Your task to perform on an android device: Go to calendar. Show me events next week Image 0: 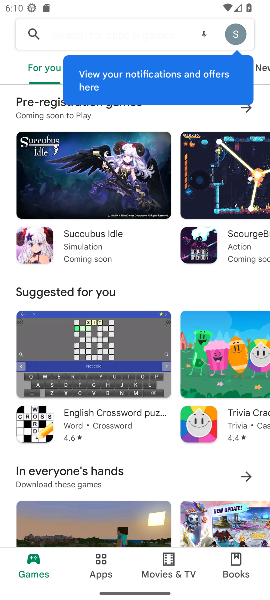
Step 0: press home button
Your task to perform on an android device: Go to calendar. Show me events next week Image 1: 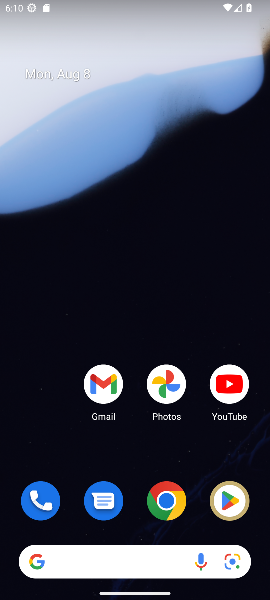
Step 1: drag from (150, 445) to (129, 28)
Your task to perform on an android device: Go to calendar. Show me events next week Image 2: 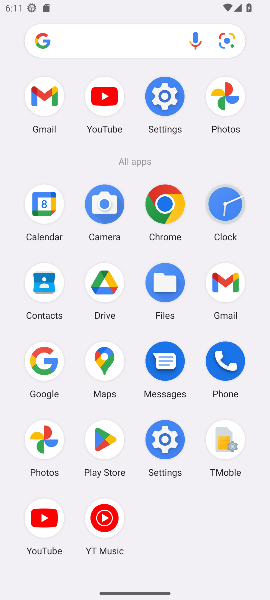
Step 2: click (45, 204)
Your task to perform on an android device: Go to calendar. Show me events next week Image 3: 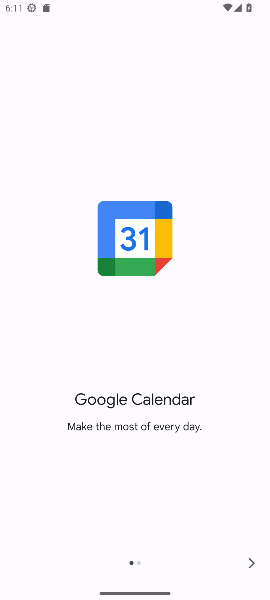
Step 3: click (248, 565)
Your task to perform on an android device: Go to calendar. Show me events next week Image 4: 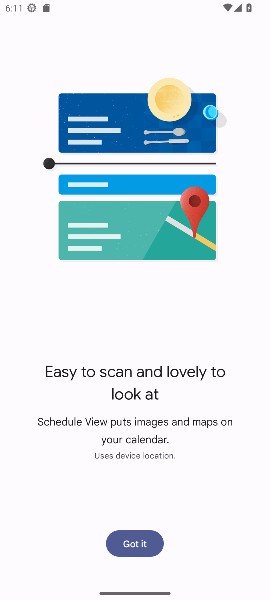
Step 4: click (133, 537)
Your task to perform on an android device: Go to calendar. Show me events next week Image 5: 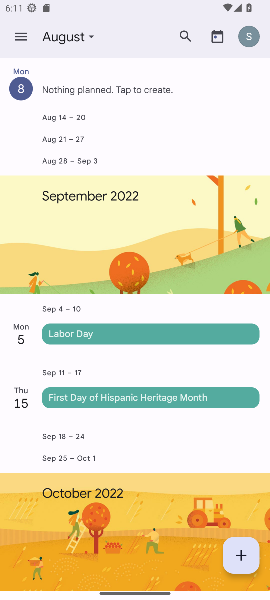
Step 5: click (75, 34)
Your task to perform on an android device: Go to calendar. Show me events next week Image 6: 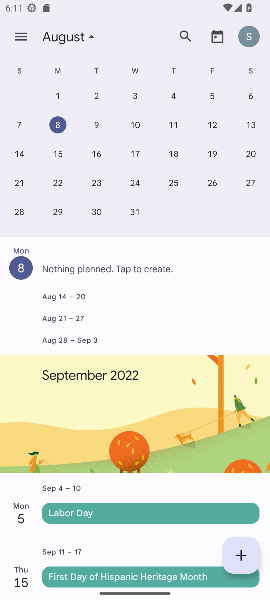
Step 6: click (26, 157)
Your task to perform on an android device: Go to calendar. Show me events next week Image 7: 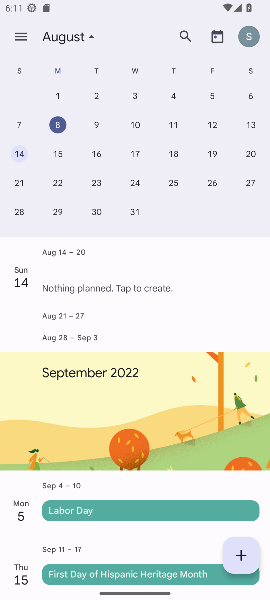
Step 7: click (52, 151)
Your task to perform on an android device: Go to calendar. Show me events next week Image 8: 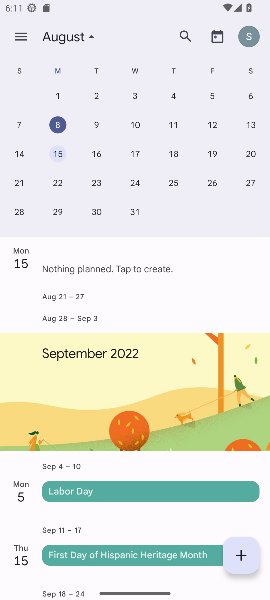
Step 8: click (95, 159)
Your task to perform on an android device: Go to calendar. Show me events next week Image 9: 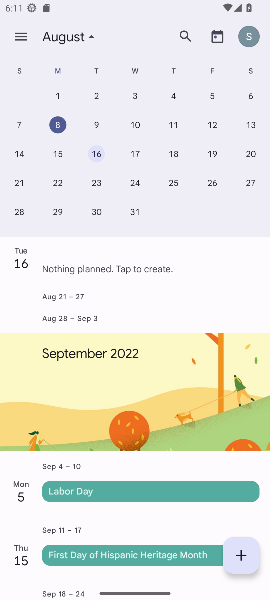
Step 9: click (138, 161)
Your task to perform on an android device: Go to calendar. Show me events next week Image 10: 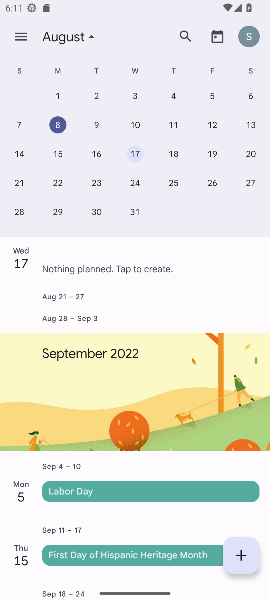
Step 10: click (165, 160)
Your task to perform on an android device: Go to calendar. Show me events next week Image 11: 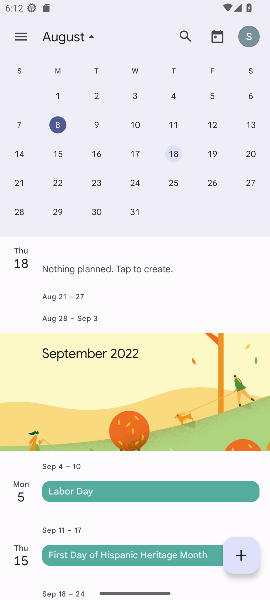
Step 11: click (207, 160)
Your task to perform on an android device: Go to calendar. Show me events next week Image 12: 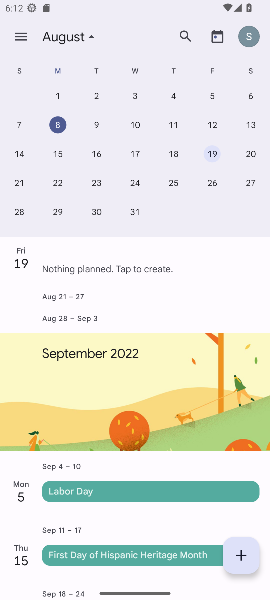
Step 12: click (241, 161)
Your task to perform on an android device: Go to calendar. Show me events next week Image 13: 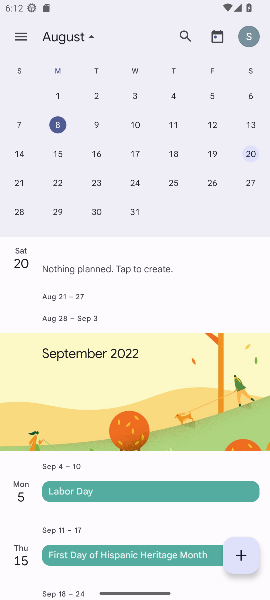
Step 13: task complete